Your task to perform on an android device: Open Google Chrome and open the bookmarks view Image 0: 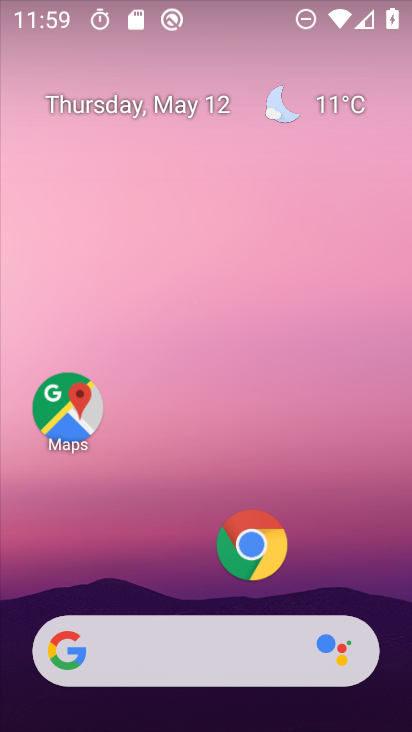
Step 0: click (248, 541)
Your task to perform on an android device: Open Google Chrome and open the bookmarks view Image 1: 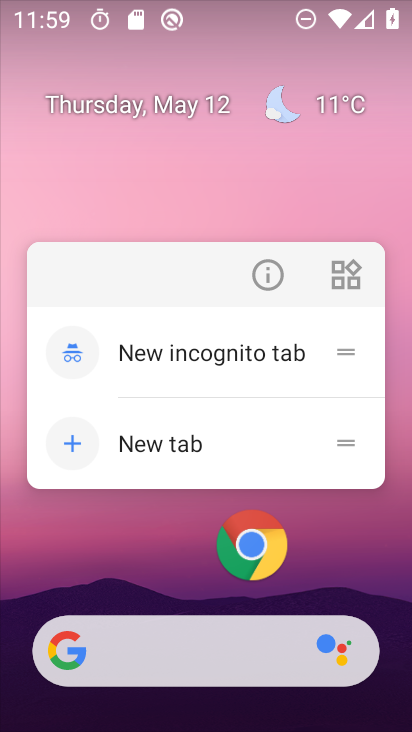
Step 1: click (248, 541)
Your task to perform on an android device: Open Google Chrome and open the bookmarks view Image 2: 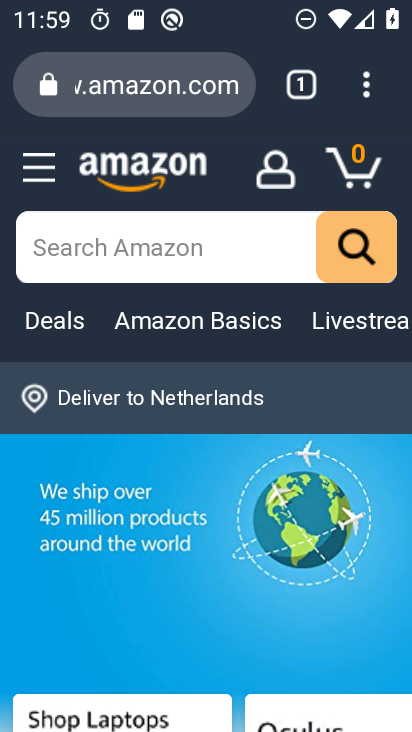
Step 2: click (365, 79)
Your task to perform on an android device: Open Google Chrome and open the bookmarks view Image 3: 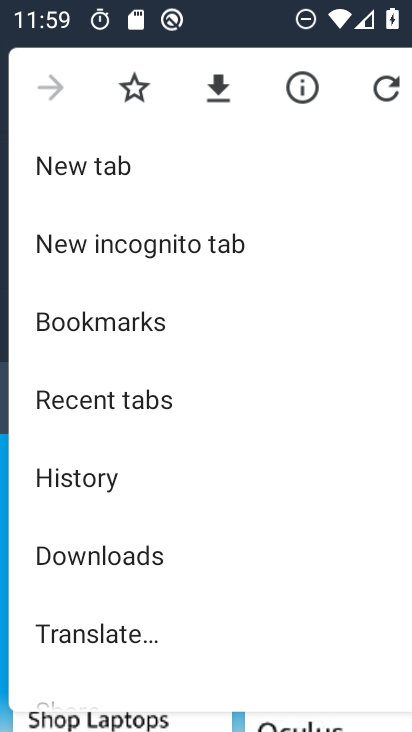
Step 3: click (176, 322)
Your task to perform on an android device: Open Google Chrome and open the bookmarks view Image 4: 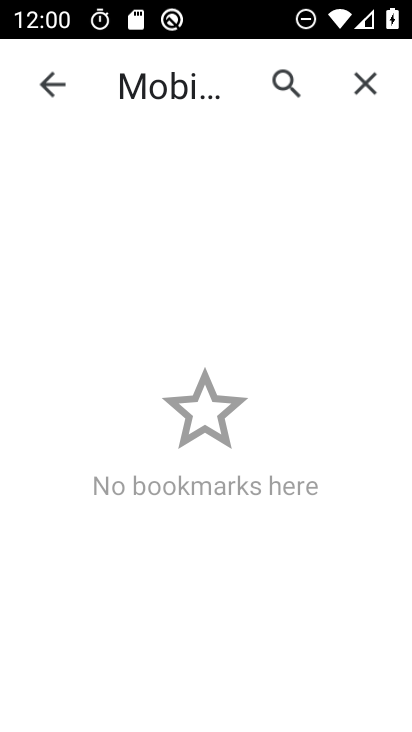
Step 4: click (365, 85)
Your task to perform on an android device: Open Google Chrome and open the bookmarks view Image 5: 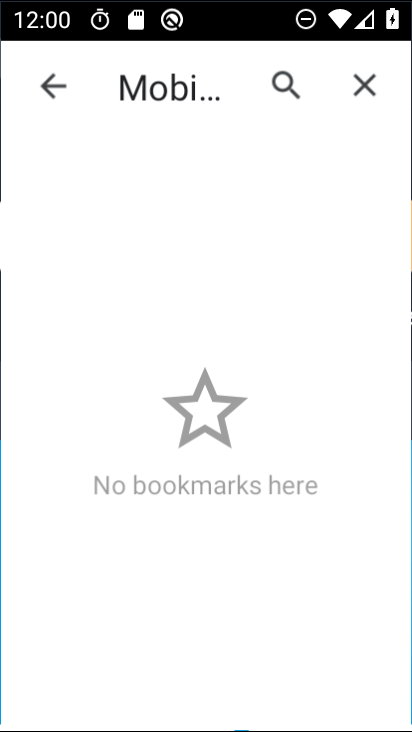
Step 5: task complete